Your task to perform on an android device: Open calendar and show me the third week of next month Image 0: 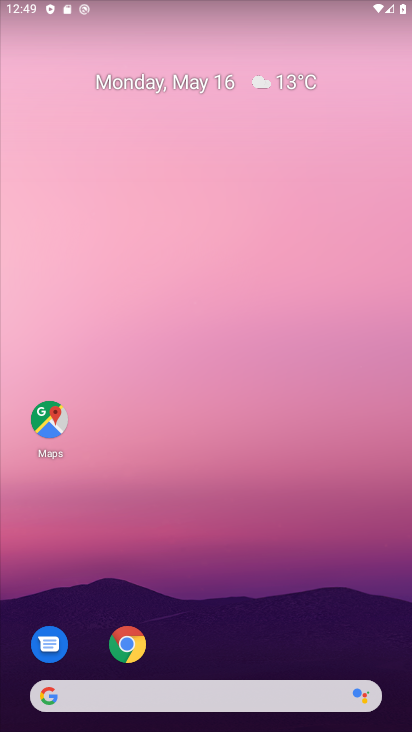
Step 0: drag from (237, 666) to (272, 452)
Your task to perform on an android device: Open calendar and show me the third week of next month Image 1: 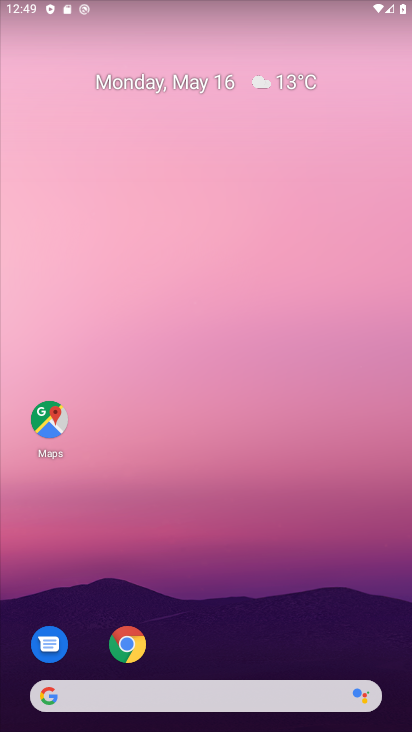
Step 1: drag from (287, 709) to (365, 309)
Your task to perform on an android device: Open calendar and show me the third week of next month Image 2: 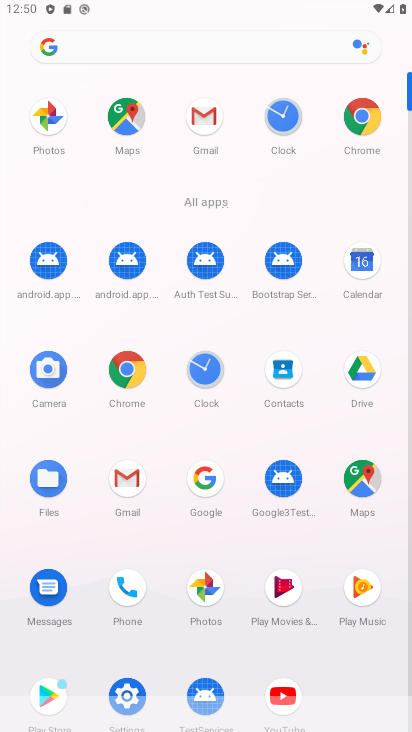
Step 2: click (352, 288)
Your task to perform on an android device: Open calendar and show me the third week of next month Image 3: 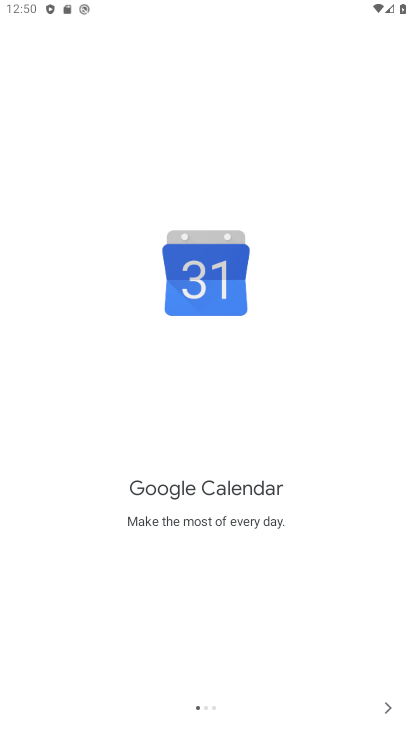
Step 3: click (390, 708)
Your task to perform on an android device: Open calendar and show me the third week of next month Image 4: 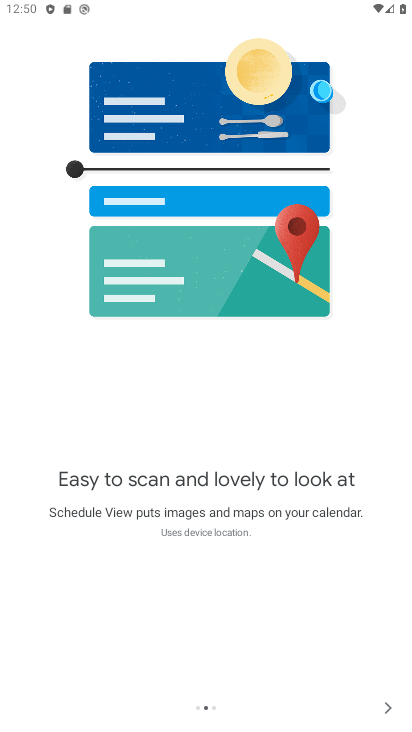
Step 4: click (384, 705)
Your task to perform on an android device: Open calendar and show me the third week of next month Image 5: 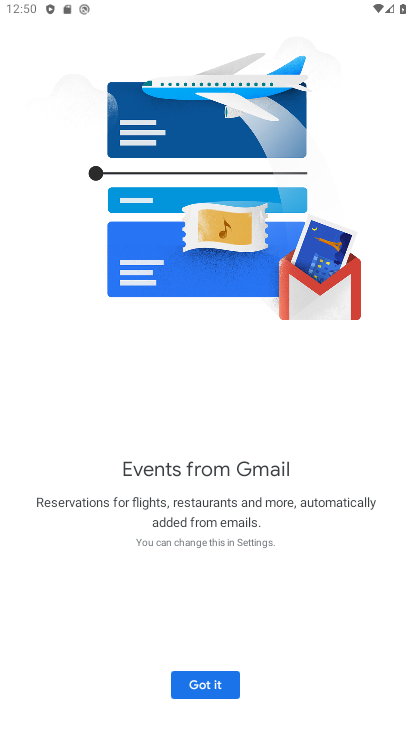
Step 5: click (216, 695)
Your task to perform on an android device: Open calendar and show me the third week of next month Image 6: 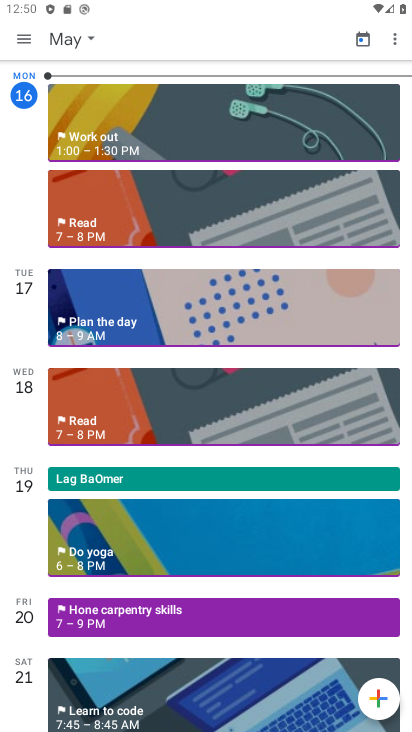
Step 6: click (84, 43)
Your task to perform on an android device: Open calendar and show me the third week of next month Image 7: 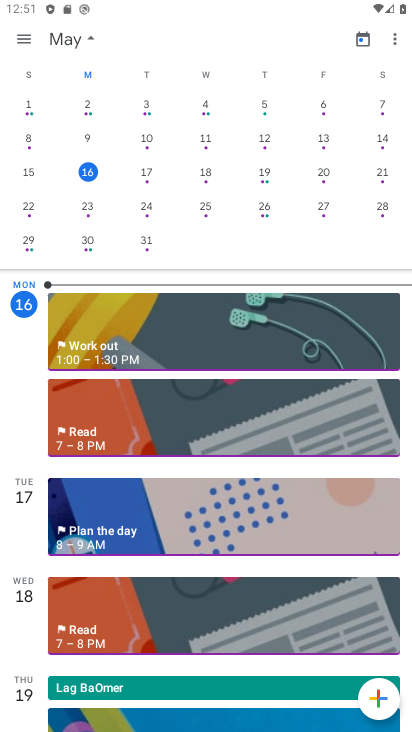
Step 7: drag from (241, 201) to (0, 189)
Your task to perform on an android device: Open calendar and show me the third week of next month Image 8: 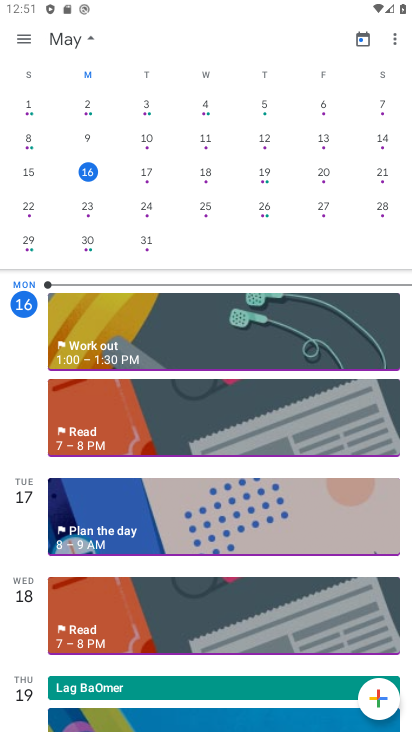
Step 8: drag from (367, 196) to (185, 206)
Your task to perform on an android device: Open calendar and show me the third week of next month Image 9: 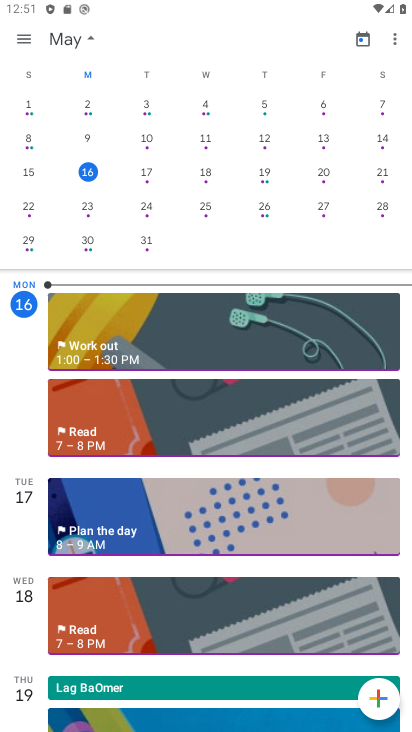
Step 9: drag from (354, 227) to (16, 228)
Your task to perform on an android device: Open calendar and show me the third week of next month Image 10: 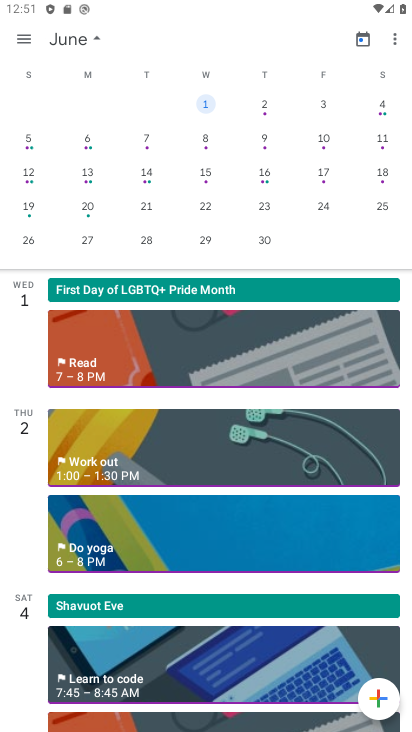
Step 10: click (31, 210)
Your task to perform on an android device: Open calendar and show me the third week of next month Image 11: 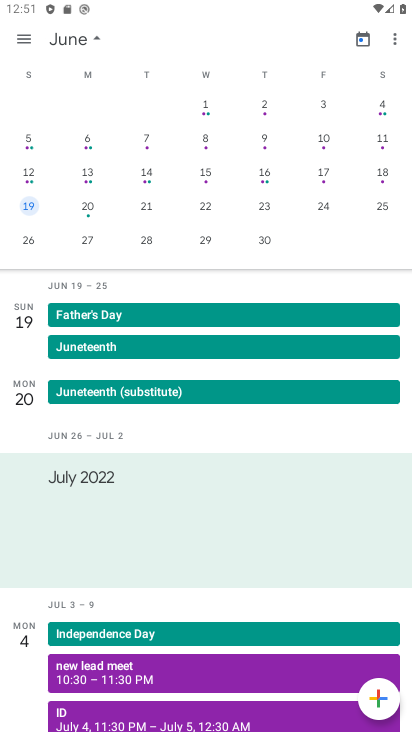
Step 11: task complete